Your task to perform on an android device: turn pop-ups on in chrome Image 0: 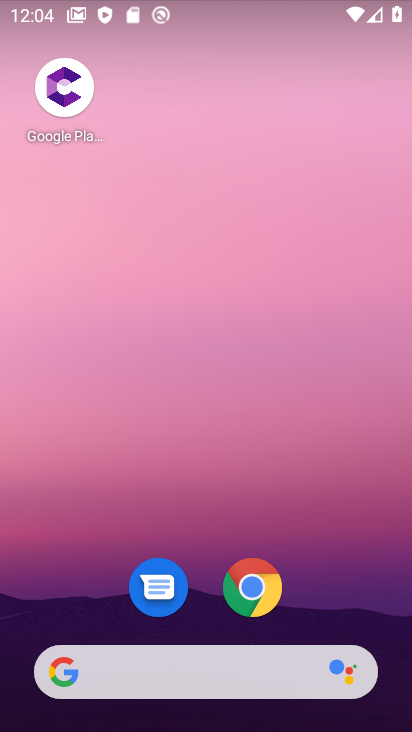
Step 0: click (250, 586)
Your task to perform on an android device: turn pop-ups on in chrome Image 1: 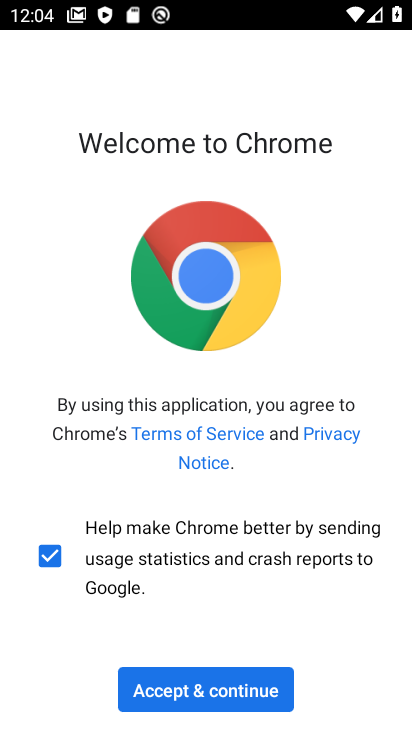
Step 1: click (236, 690)
Your task to perform on an android device: turn pop-ups on in chrome Image 2: 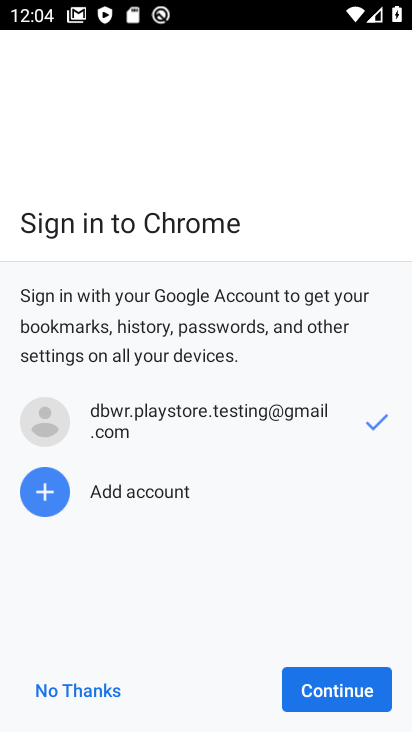
Step 2: click (43, 684)
Your task to perform on an android device: turn pop-ups on in chrome Image 3: 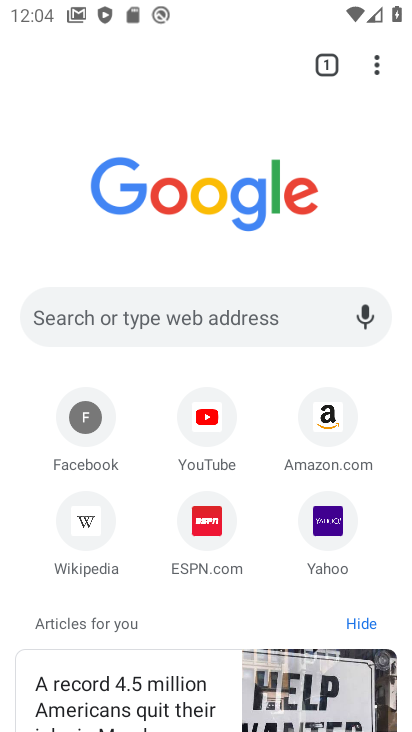
Step 3: click (380, 62)
Your task to perform on an android device: turn pop-ups on in chrome Image 4: 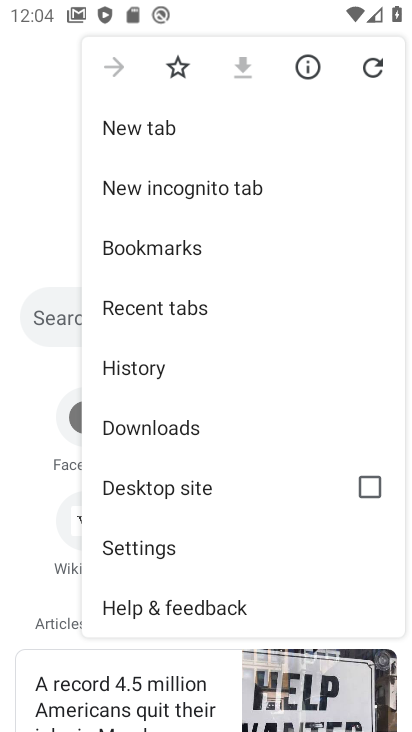
Step 4: click (150, 554)
Your task to perform on an android device: turn pop-ups on in chrome Image 5: 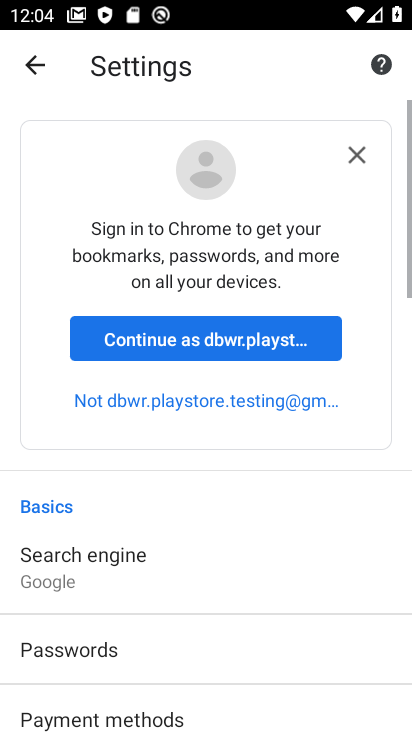
Step 5: drag from (140, 667) to (249, 302)
Your task to perform on an android device: turn pop-ups on in chrome Image 6: 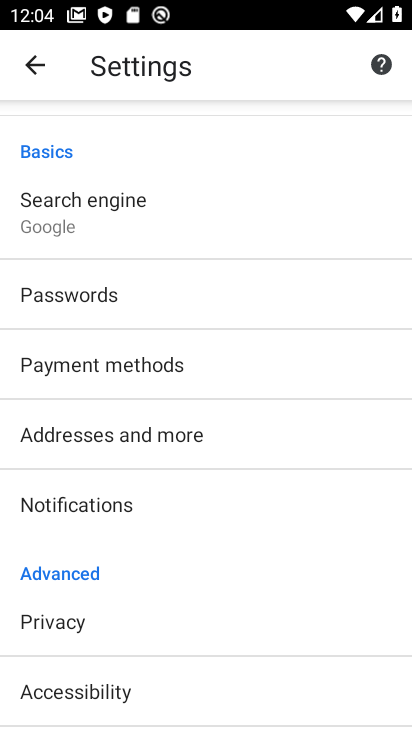
Step 6: drag from (153, 648) to (217, 357)
Your task to perform on an android device: turn pop-ups on in chrome Image 7: 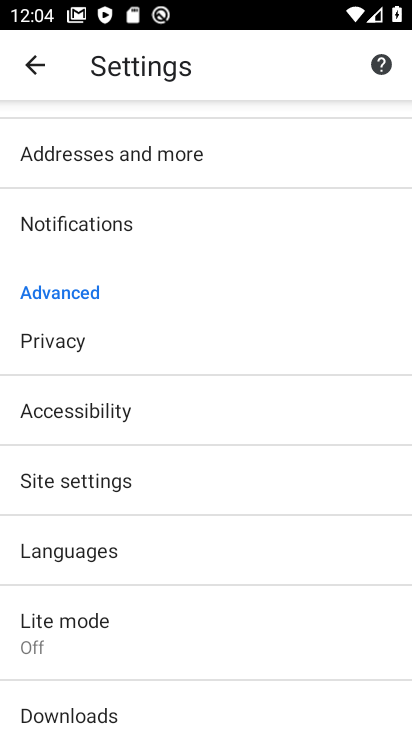
Step 7: click (153, 473)
Your task to perform on an android device: turn pop-ups on in chrome Image 8: 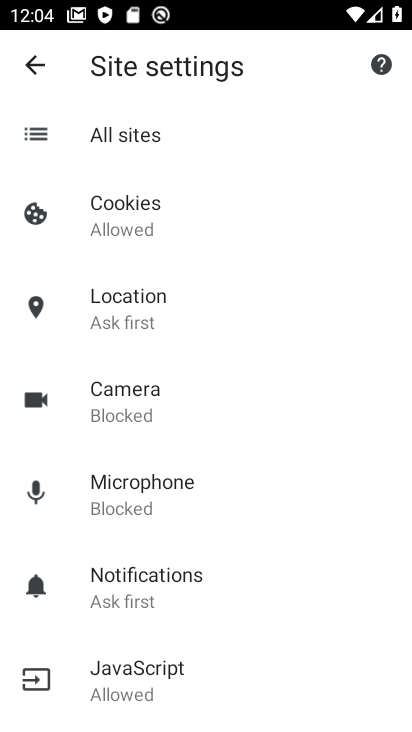
Step 8: drag from (119, 672) to (214, 292)
Your task to perform on an android device: turn pop-ups on in chrome Image 9: 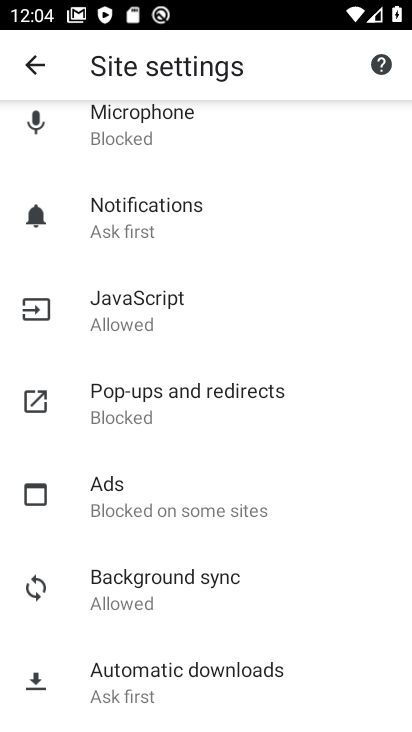
Step 9: click (162, 405)
Your task to perform on an android device: turn pop-ups on in chrome Image 10: 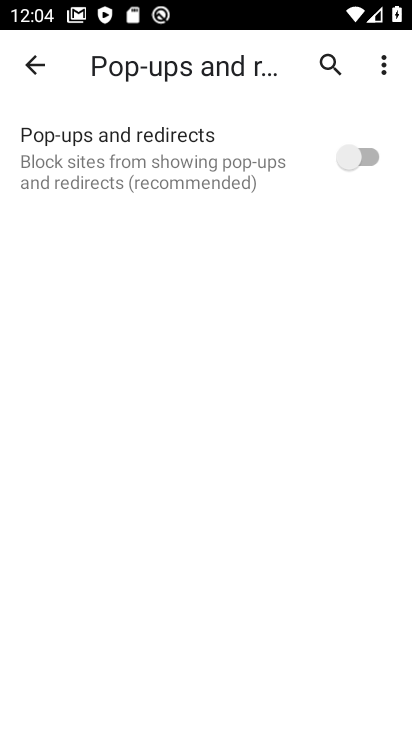
Step 10: click (340, 162)
Your task to perform on an android device: turn pop-ups on in chrome Image 11: 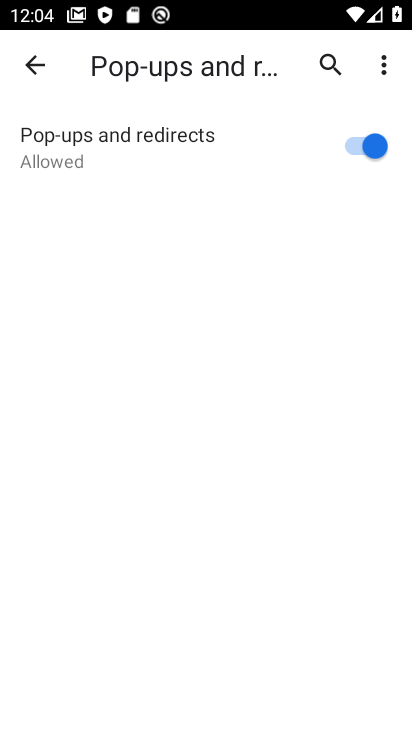
Step 11: task complete